Your task to perform on an android device: search for starred emails in the gmail app Image 0: 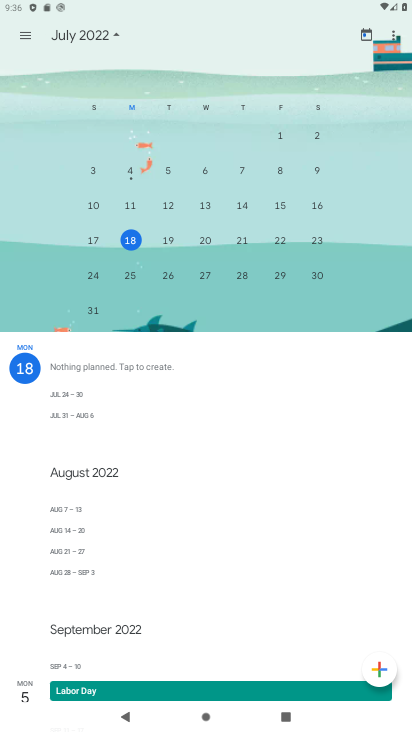
Step 0: press home button
Your task to perform on an android device: search for starred emails in the gmail app Image 1: 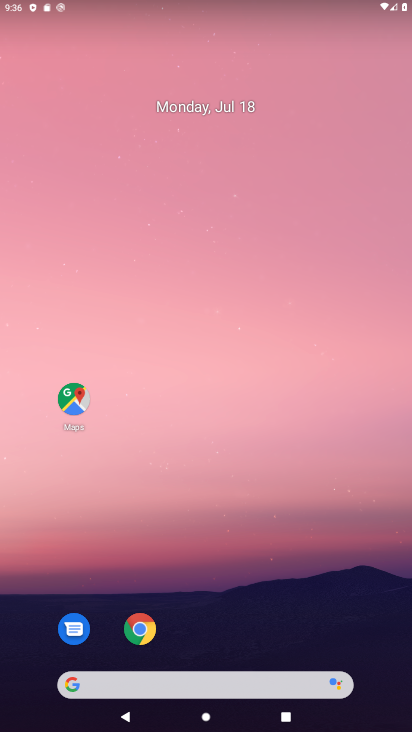
Step 1: drag from (197, 681) to (175, 168)
Your task to perform on an android device: search for starred emails in the gmail app Image 2: 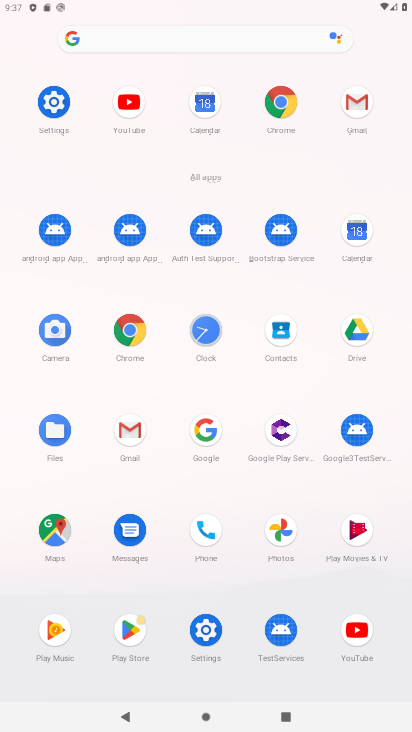
Step 2: click (118, 441)
Your task to perform on an android device: search for starred emails in the gmail app Image 3: 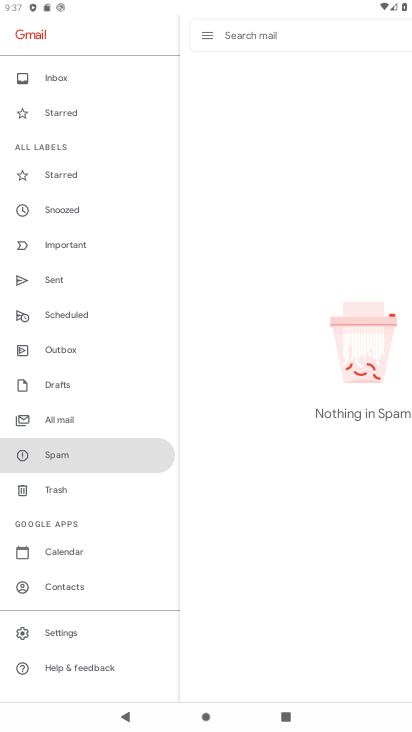
Step 3: click (67, 174)
Your task to perform on an android device: search for starred emails in the gmail app Image 4: 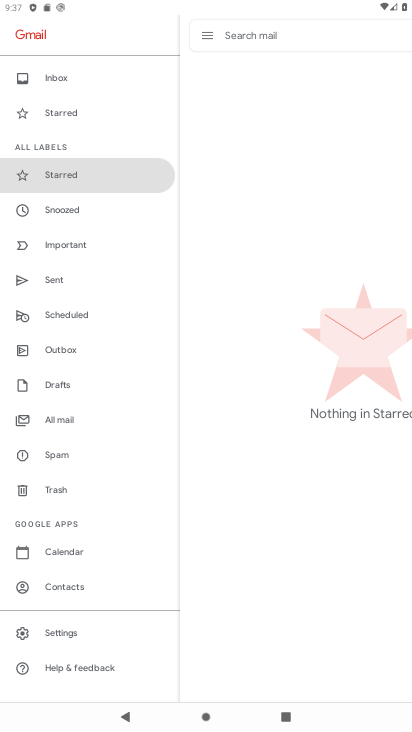
Step 4: task complete